Your task to perform on an android device: Open Android settings Image 0: 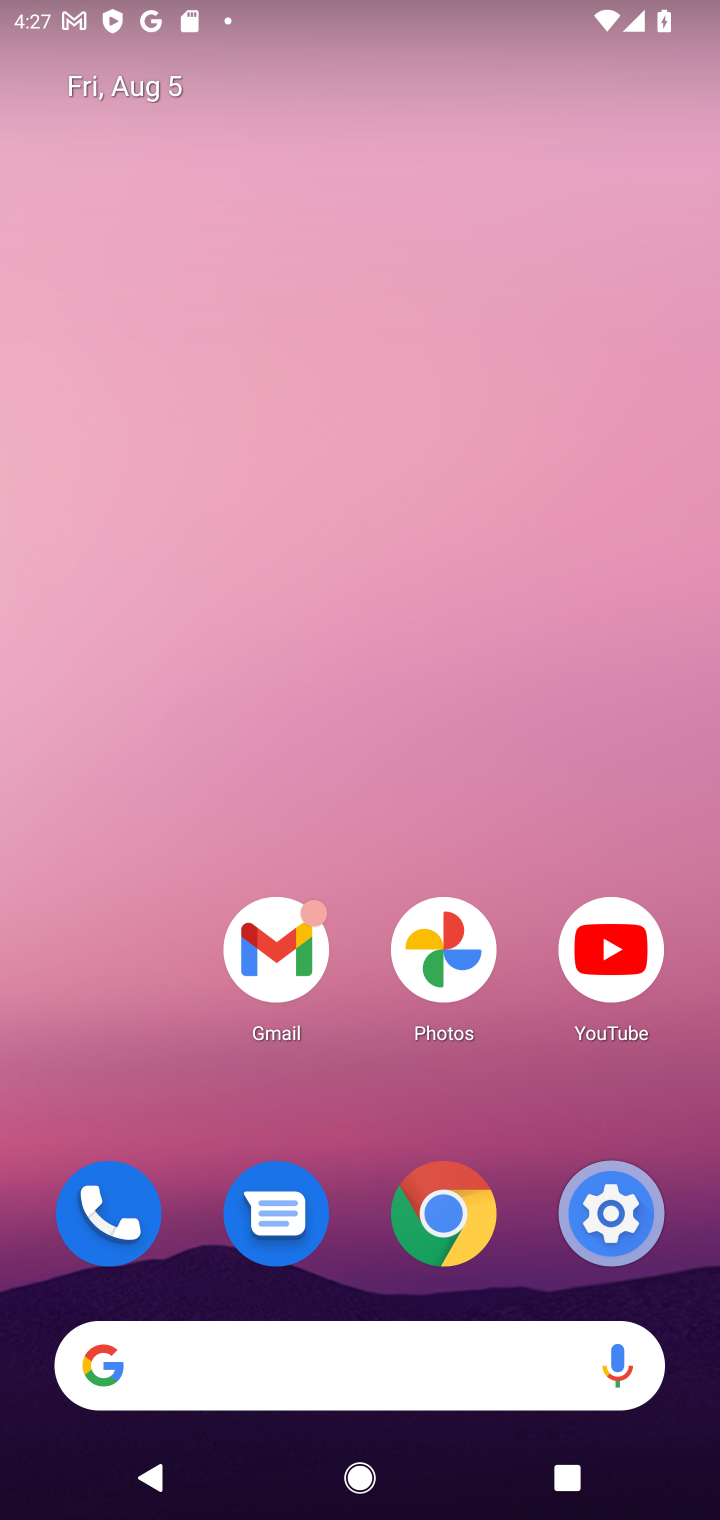
Step 0: click (599, 1237)
Your task to perform on an android device: Open Android settings Image 1: 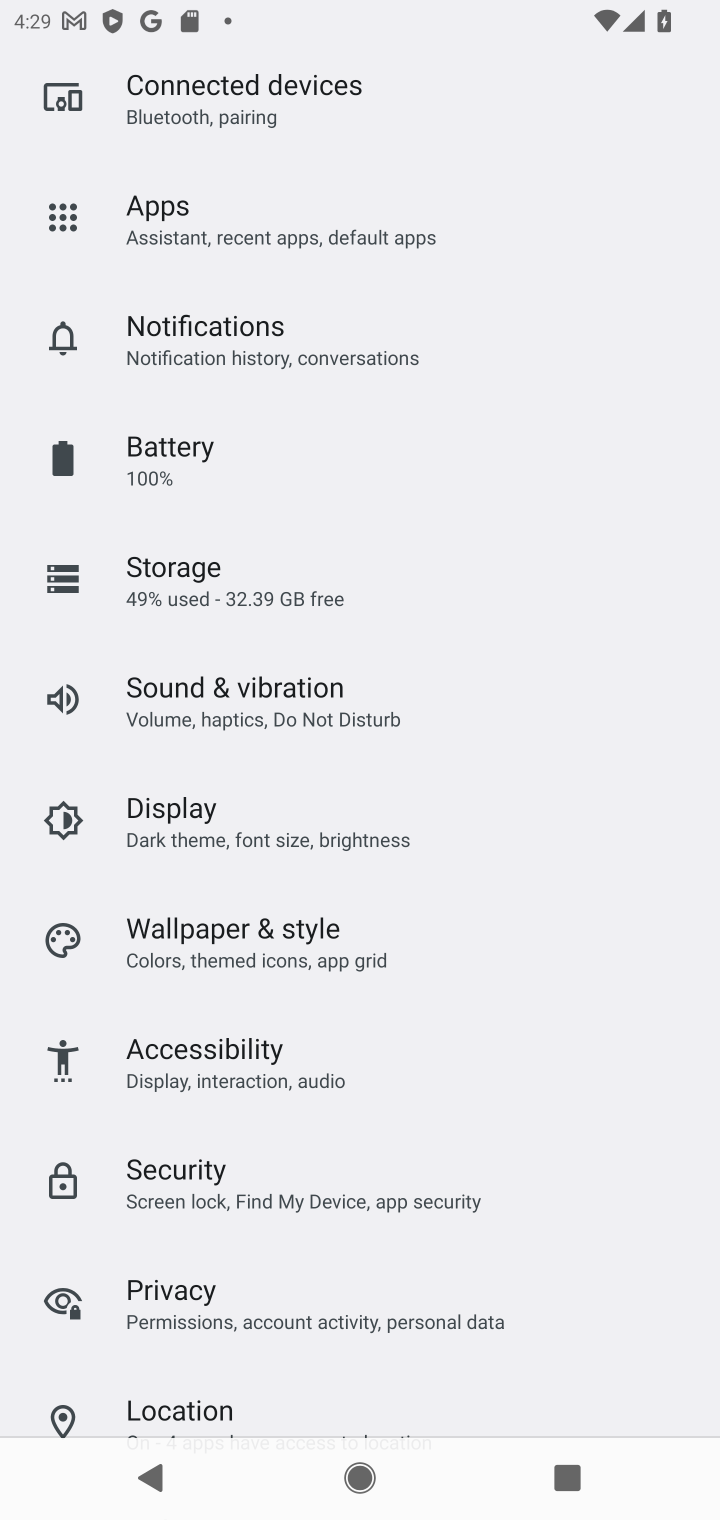
Step 1: task complete